Your task to perform on an android device: Do I have any events tomorrow? Image 0: 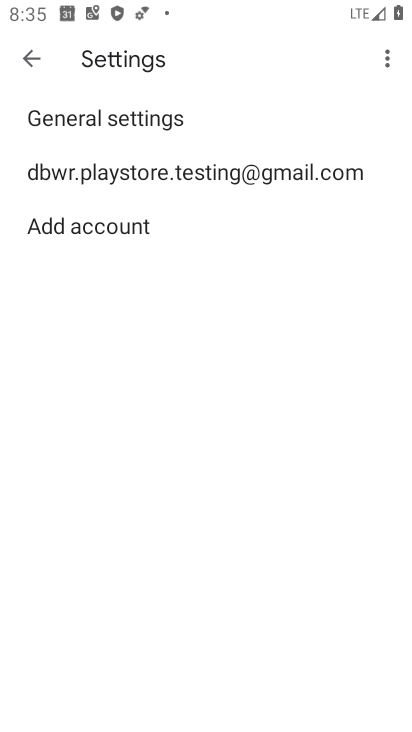
Step 0: press home button
Your task to perform on an android device: Do I have any events tomorrow? Image 1: 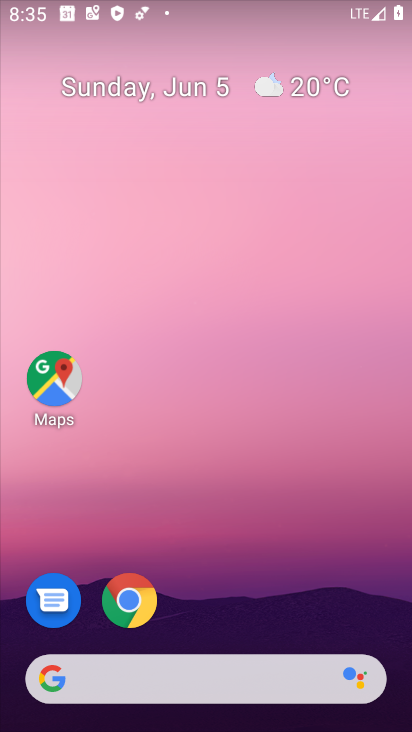
Step 1: drag from (220, 530) to (235, 0)
Your task to perform on an android device: Do I have any events tomorrow? Image 2: 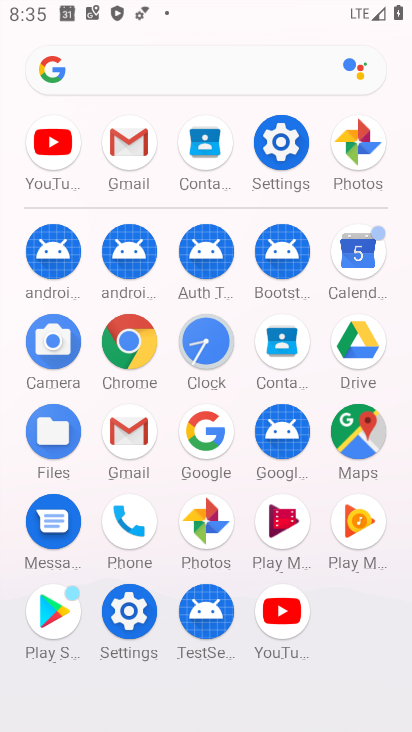
Step 2: click (283, 142)
Your task to perform on an android device: Do I have any events tomorrow? Image 3: 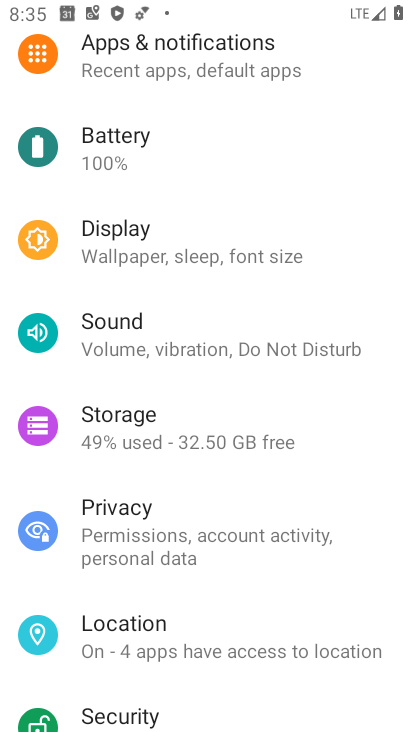
Step 3: press home button
Your task to perform on an android device: Do I have any events tomorrow? Image 4: 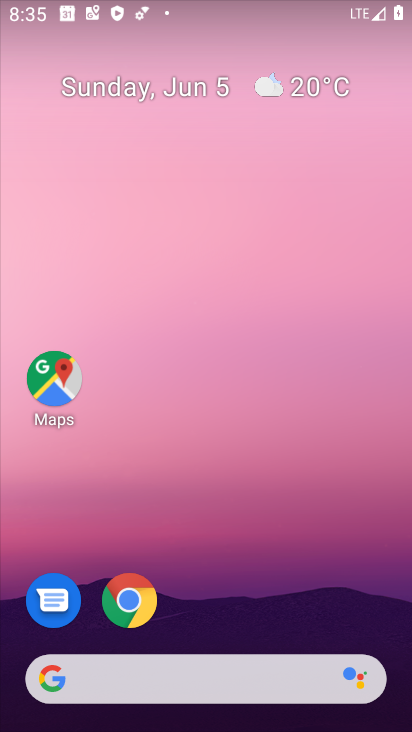
Step 4: drag from (267, 547) to (266, 39)
Your task to perform on an android device: Do I have any events tomorrow? Image 5: 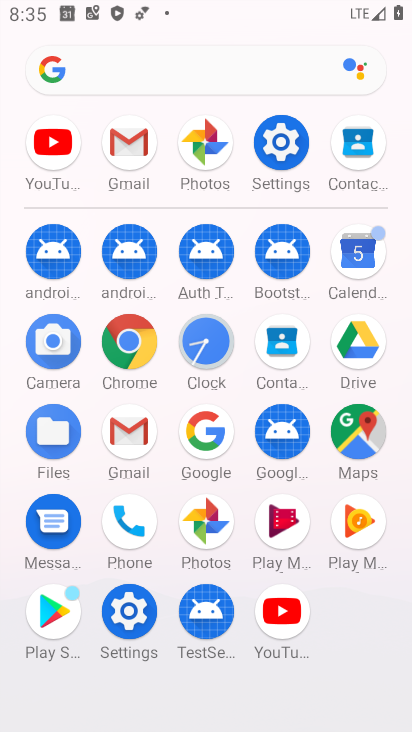
Step 5: click (353, 256)
Your task to perform on an android device: Do I have any events tomorrow? Image 6: 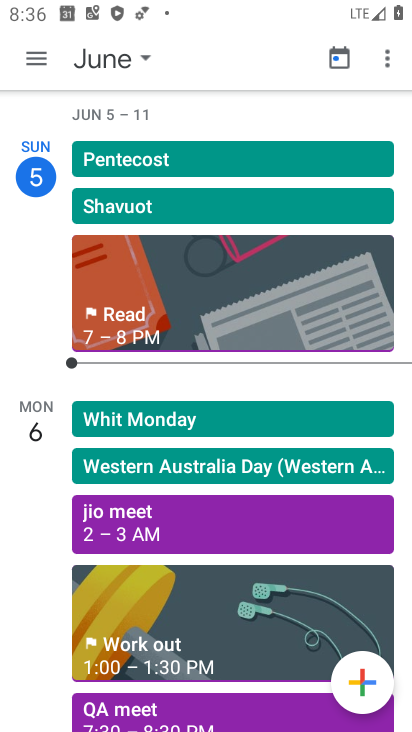
Step 6: task complete